Your task to perform on an android device: What's the news in Suriname? Image 0: 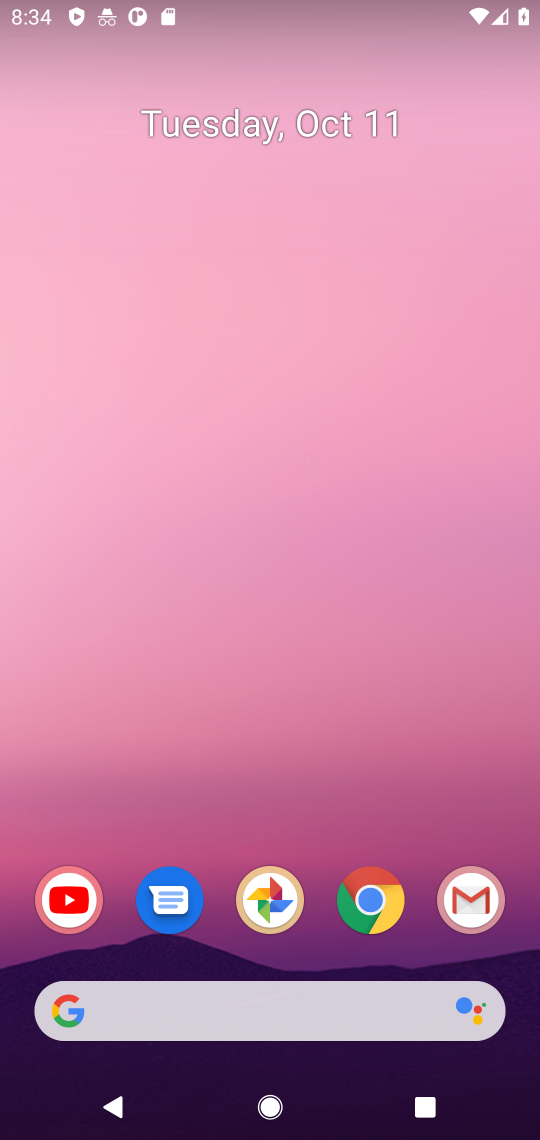
Step 0: click (342, 724)
Your task to perform on an android device: What's the news in Suriname? Image 1: 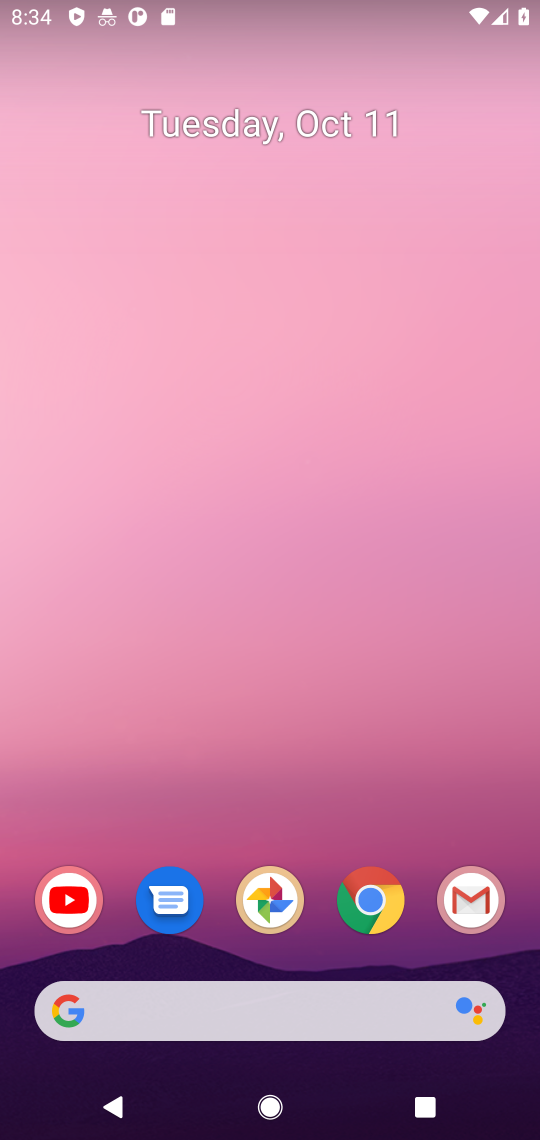
Step 1: click (361, 919)
Your task to perform on an android device: What's the news in Suriname? Image 2: 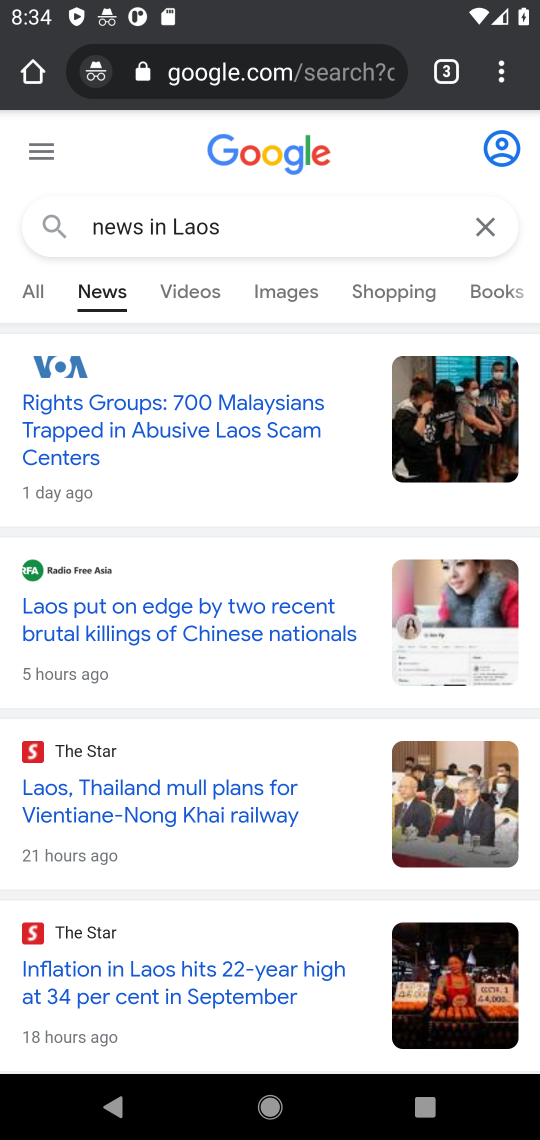
Step 2: click (320, 71)
Your task to perform on an android device: What's the news in Suriname? Image 3: 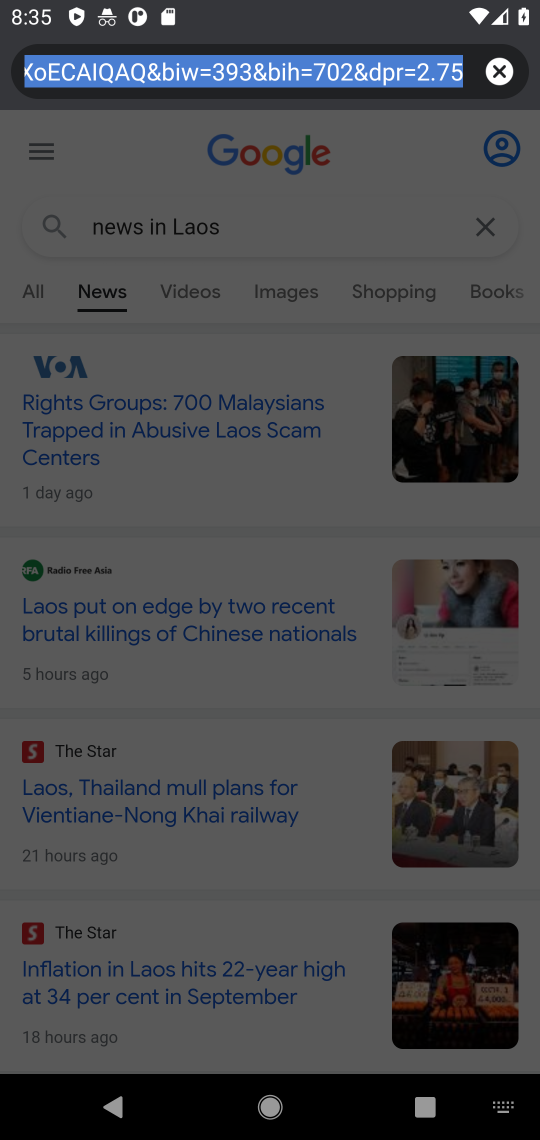
Step 3: type "news in Suriname"
Your task to perform on an android device: What's the news in Suriname? Image 4: 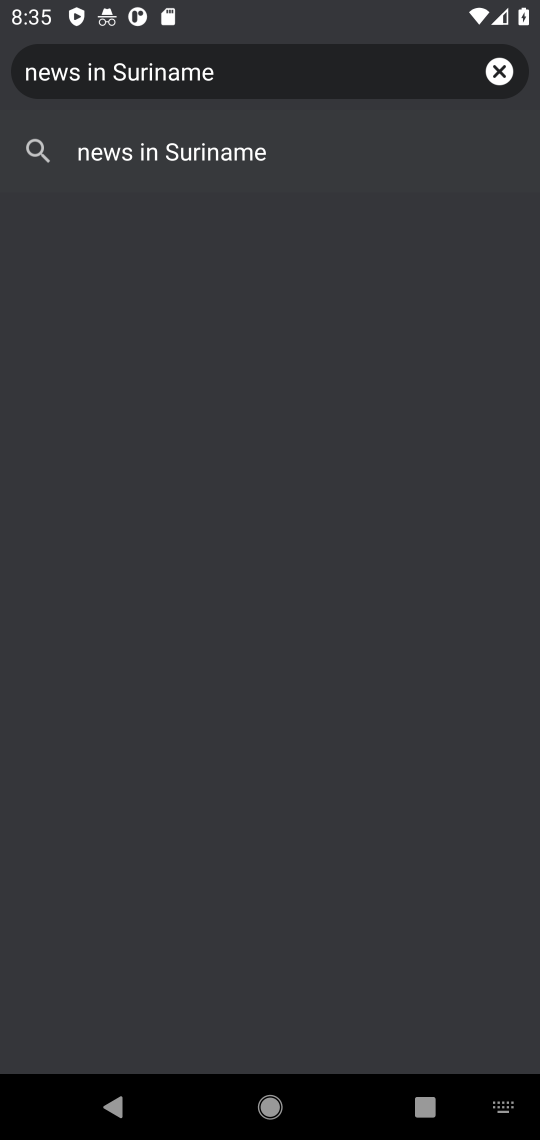
Step 4: click (299, 137)
Your task to perform on an android device: What's the news in Suriname? Image 5: 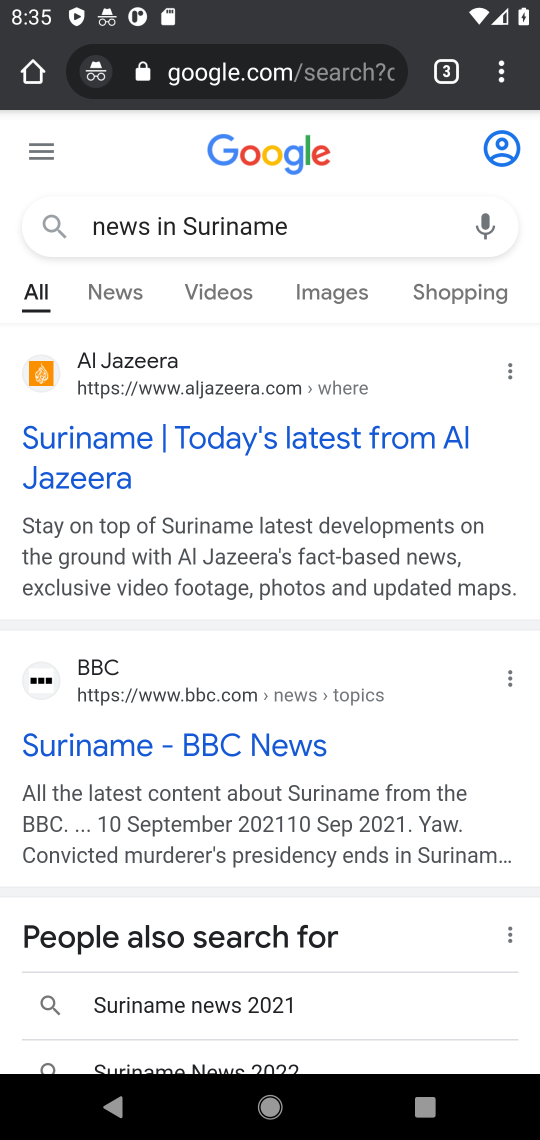
Step 5: click (123, 297)
Your task to perform on an android device: What's the news in Suriname? Image 6: 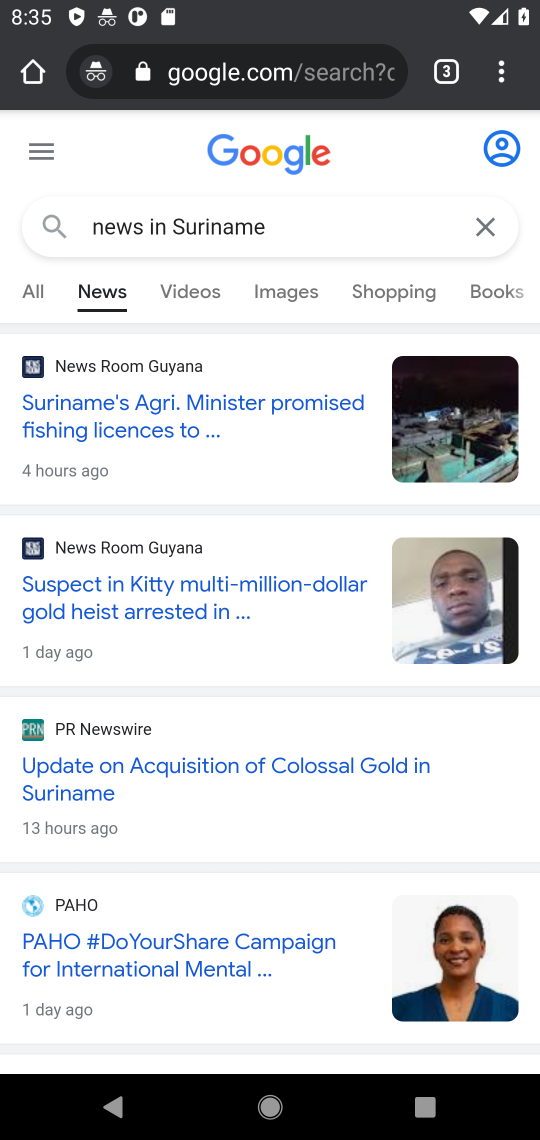
Step 6: task complete